Your task to perform on an android device: Open accessibility settings Image 0: 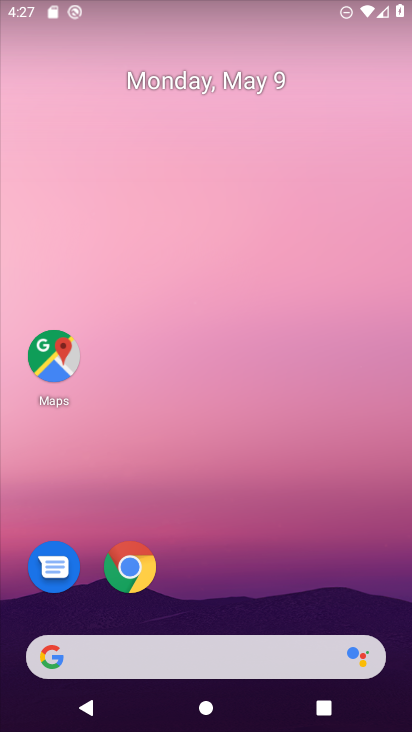
Step 0: drag from (273, 539) to (279, 142)
Your task to perform on an android device: Open accessibility settings Image 1: 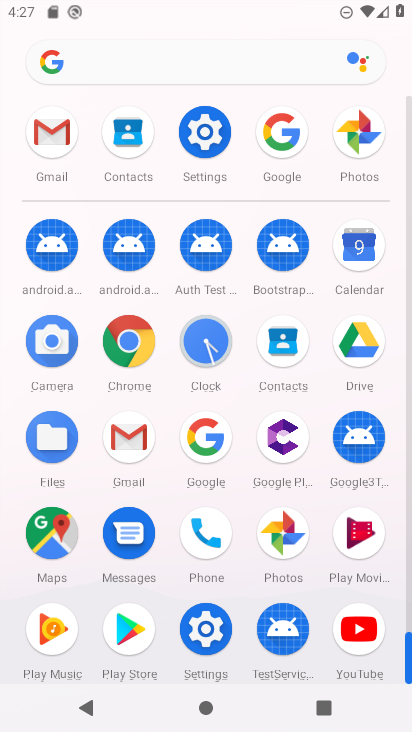
Step 1: click (194, 131)
Your task to perform on an android device: Open accessibility settings Image 2: 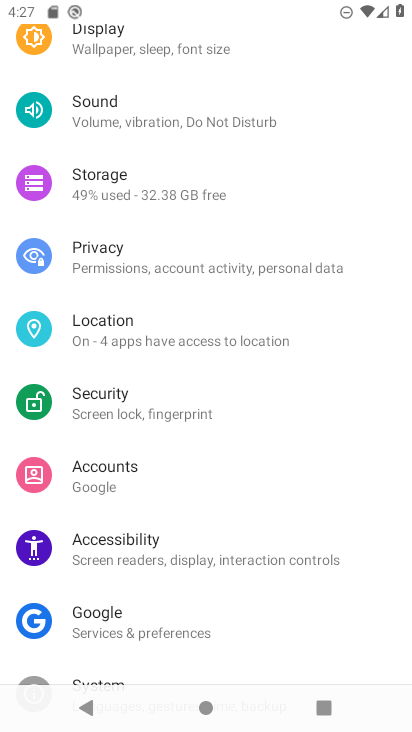
Step 2: click (178, 541)
Your task to perform on an android device: Open accessibility settings Image 3: 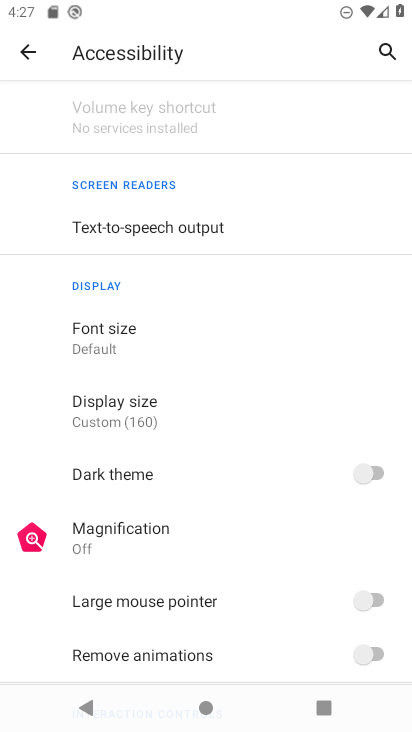
Step 3: task complete